Your task to perform on an android device: Open network settings Image 0: 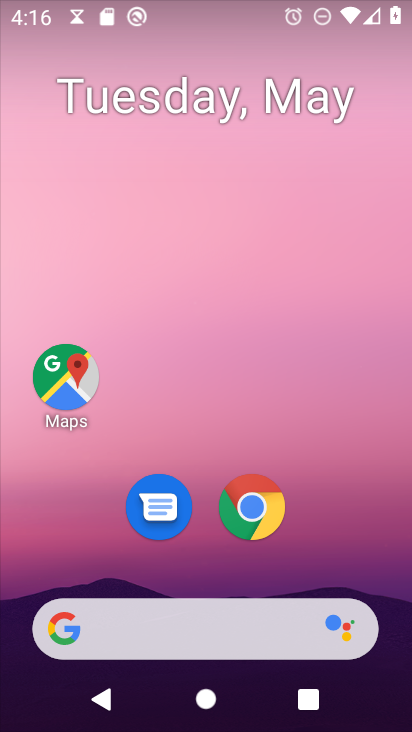
Step 0: drag from (214, 564) to (129, 28)
Your task to perform on an android device: Open network settings Image 1: 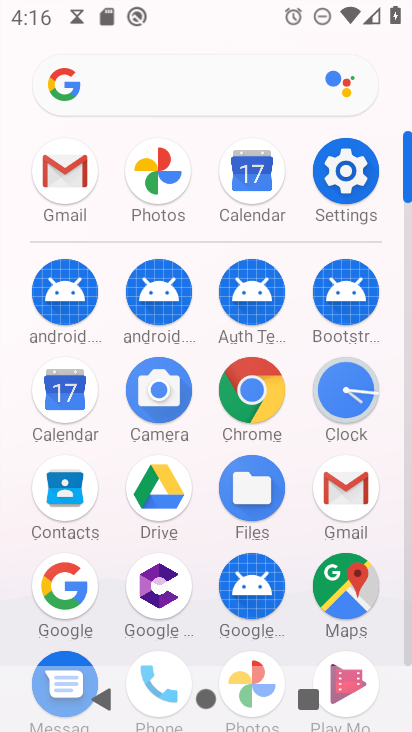
Step 1: click (341, 176)
Your task to perform on an android device: Open network settings Image 2: 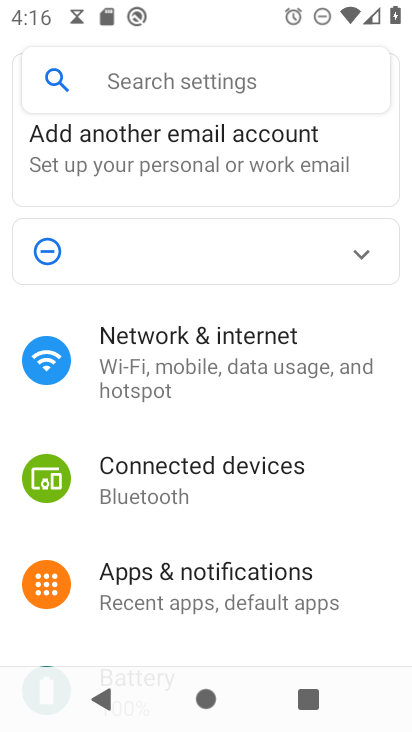
Step 2: click (150, 372)
Your task to perform on an android device: Open network settings Image 3: 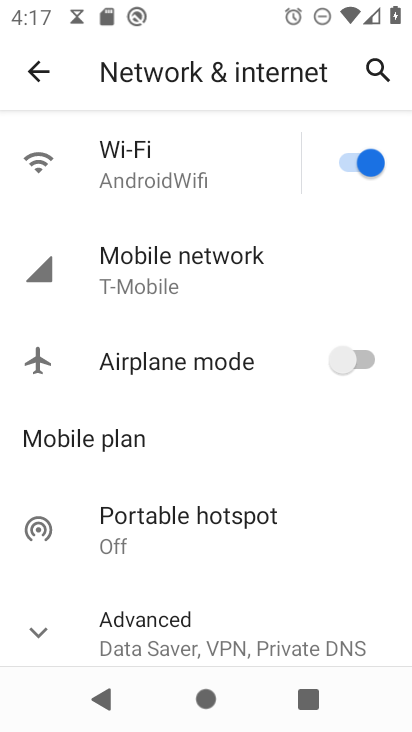
Step 3: click (94, 279)
Your task to perform on an android device: Open network settings Image 4: 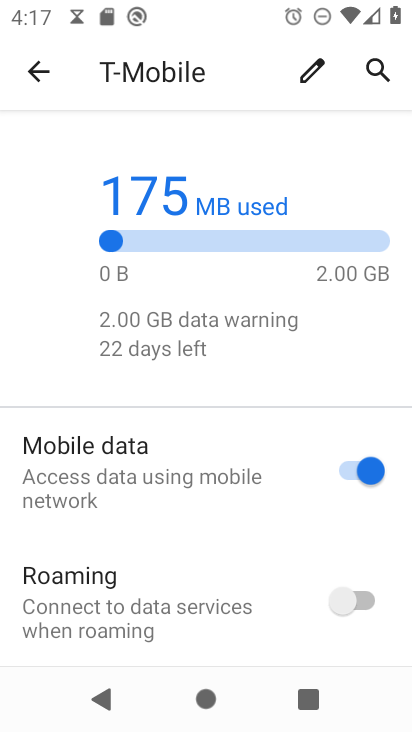
Step 4: task complete